Your task to perform on an android device: Go to sound settings Image 0: 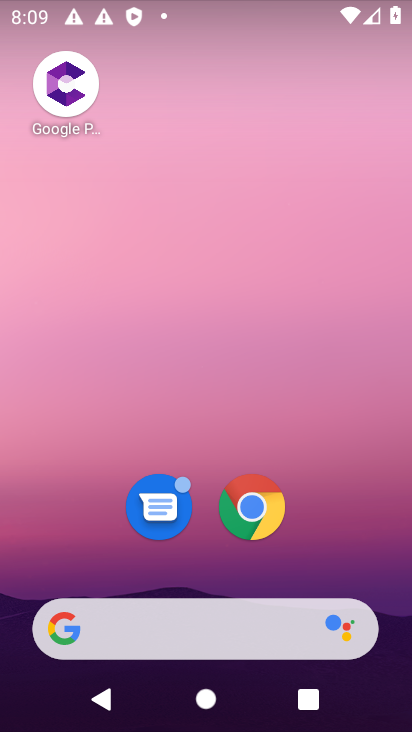
Step 0: drag from (211, 571) to (146, 25)
Your task to perform on an android device: Go to sound settings Image 1: 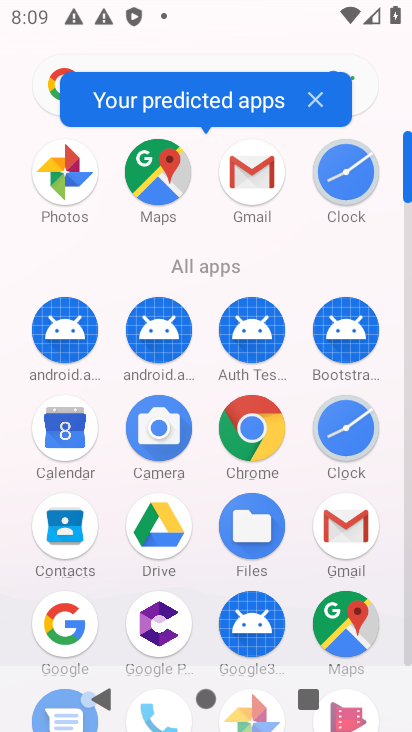
Step 1: drag from (207, 640) to (278, 60)
Your task to perform on an android device: Go to sound settings Image 2: 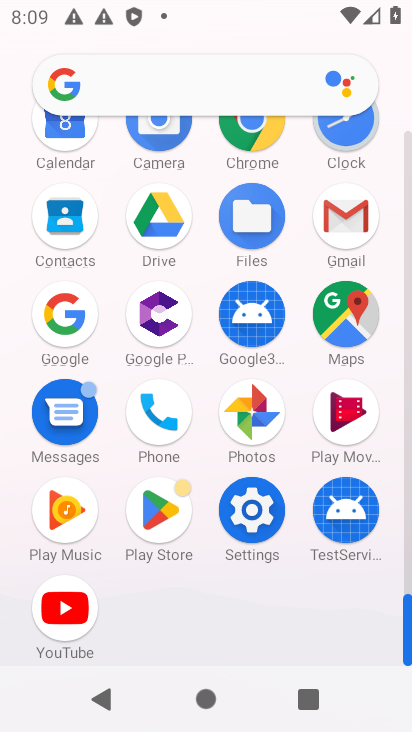
Step 2: click (241, 501)
Your task to perform on an android device: Go to sound settings Image 3: 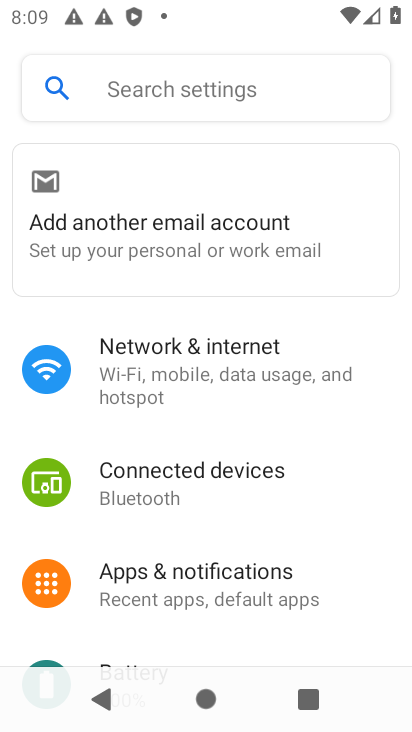
Step 3: drag from (121, 565) to (109, 242)
Your task to perform on an android device: Go to sound settings Image 4: 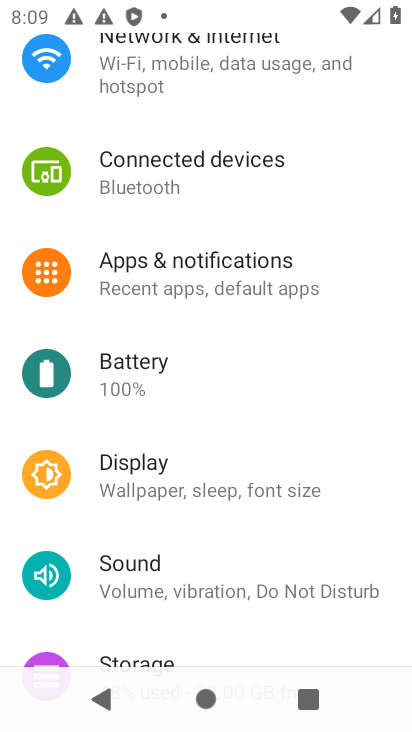
Step 4: drag from (137, 460) to (89, 159)
Your task to perform on an android device: Go to sound settings Image 5: 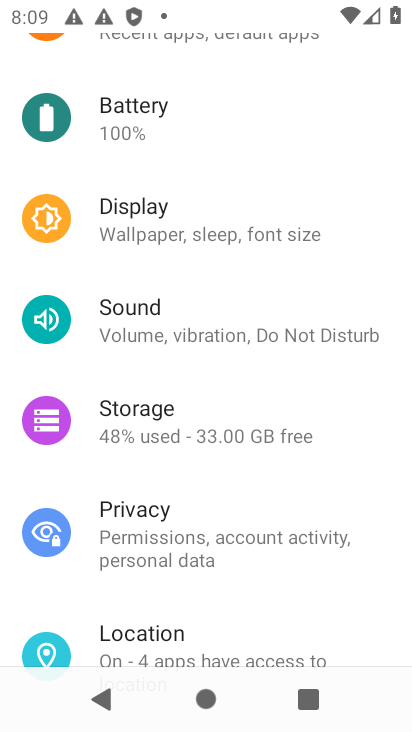
Step 5: click (135, 334)
Your task to perform on an android device: Go to sound settings Image 6: 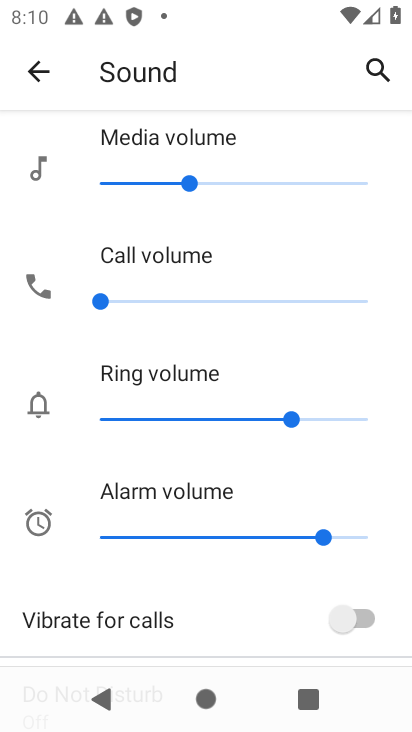
Step 6: task complete